Your task to perform on an android device: Go to Android settings Image 0: 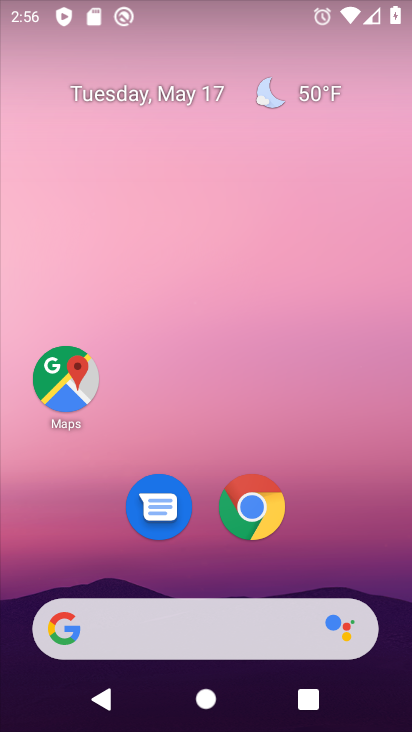
Step 0: drag from (330, 555) to (222, 22)
Your task to perform on an android device: Go to Android settings Image 1: 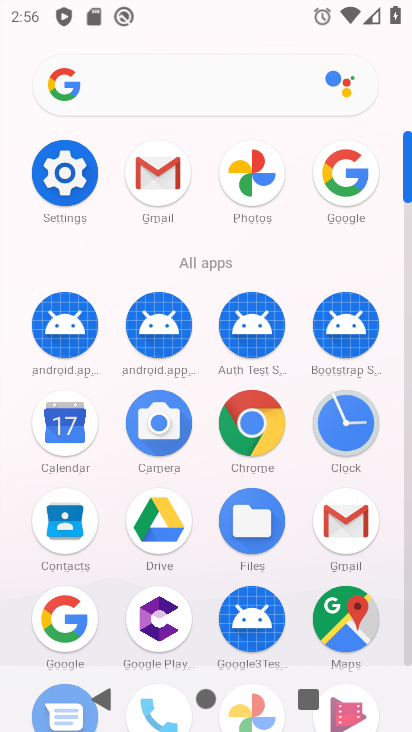
Step 1: click (70, 174)
Your task to perform on an android device: Go to Android settings Image 2: 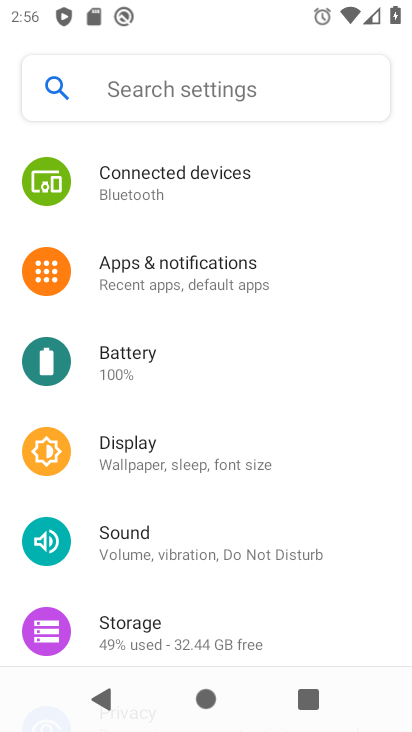
Step 2: drag from (278, 619) to (201, 44)
Your task to perform on an android device: Go to Android settings Image 3: 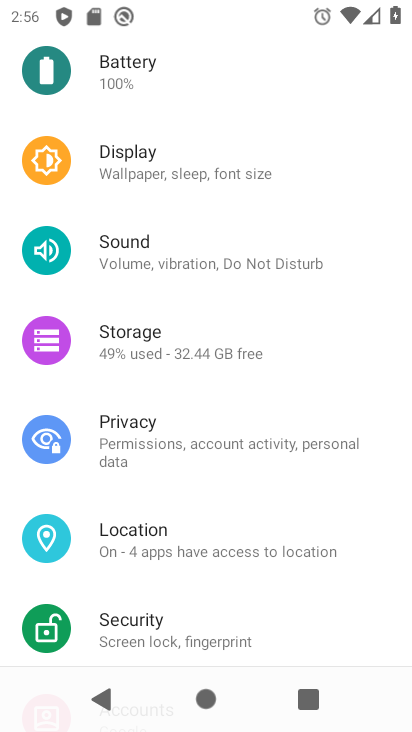
Step 3: drag from (271, 580) to (207, 38)
Your task to perform on an android device: Go to Android settings Image 4: 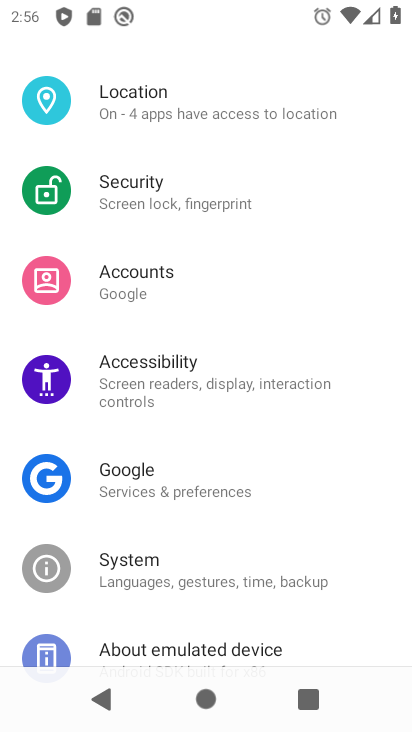
Step 4: drag from (245, 591) to (224, 214)
Your task to perform on an android device: Go to Android settings Image 5: 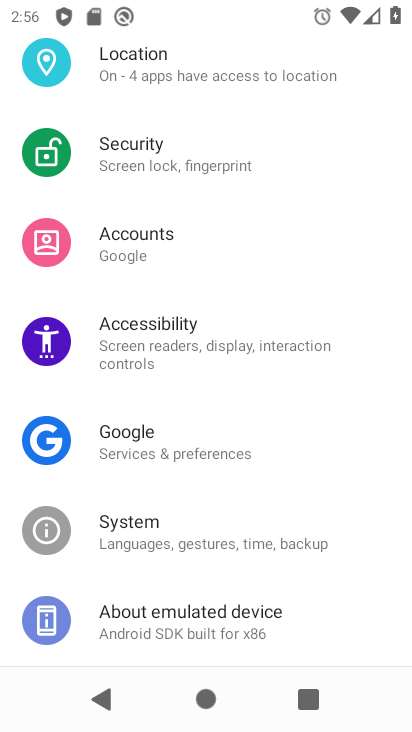
Step 5: click (210, 640)
Your task to perform on an android device: Go to Android settings Image 6: 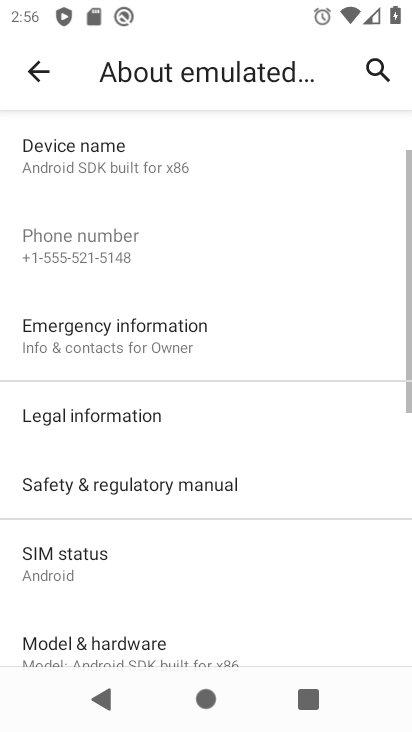
Step 6: drag from (180, 552) to (225, 242)
Your task to perform on an android device: Go to Android settings Image 7: 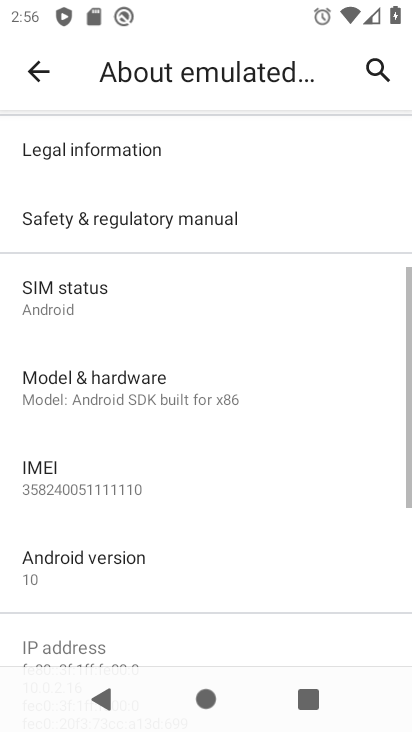
Step 7: click (121, 577)
Your task to perform on an android device: Go to Android settings Image 8: 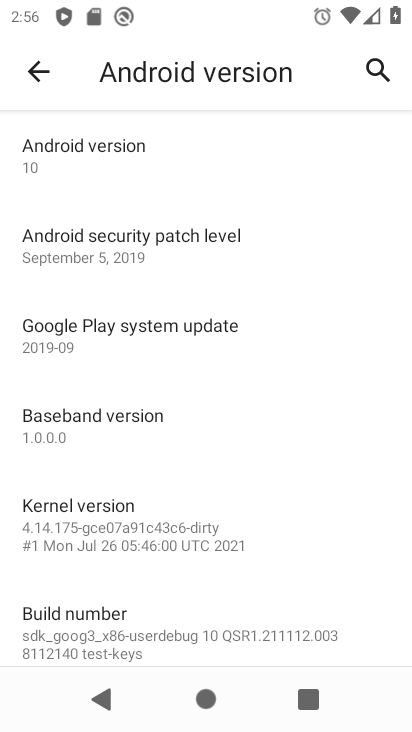
Step 8: task complete